Your task to perform on an android device: toggle location history Image 0: 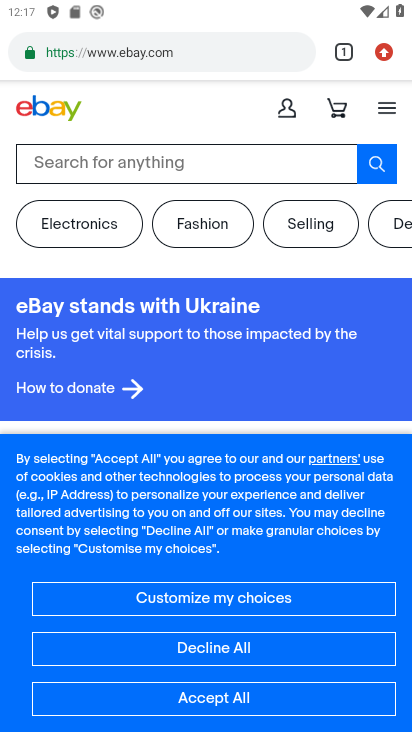
Step 0: press home button
Your task to perform on an android device: toggle location history Image 1: 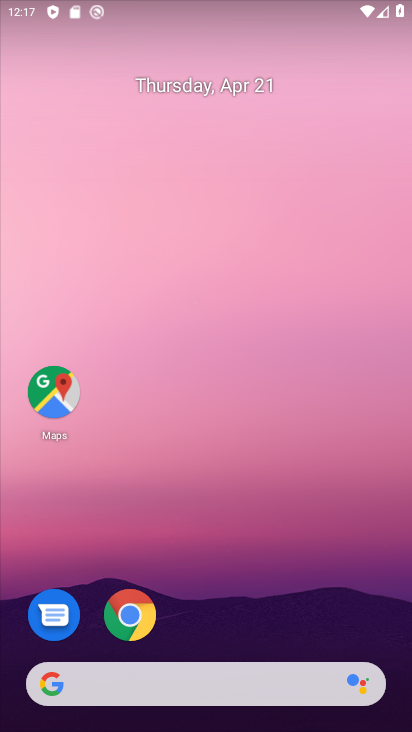
Step 1: drag from (205, 511) to (246, 66)
Your task to perform on an android device: toggle location history Image 2: 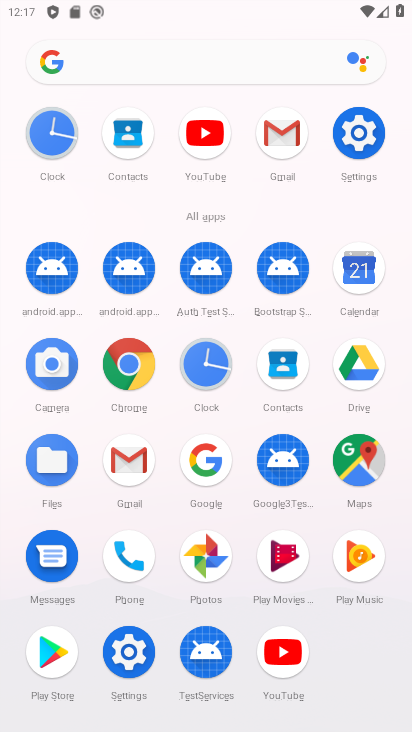
Step 2: click (350, 131)
Your task to perform on an android device: toggle location history Image 3: 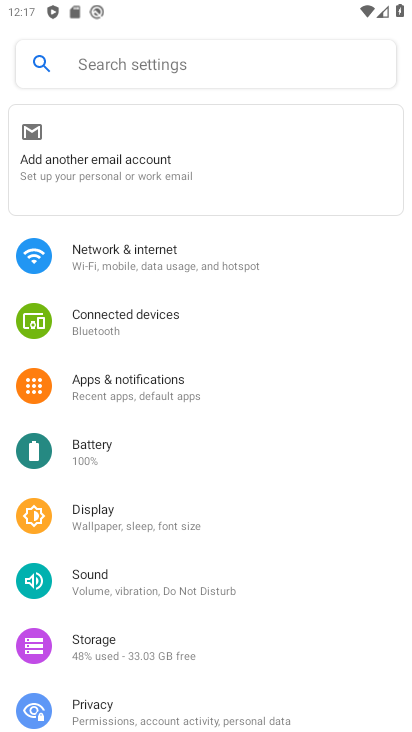
Step 3: drag from (113, 635) to (141, 306)
Your task to perform on an android device: toggle location history Image 4: 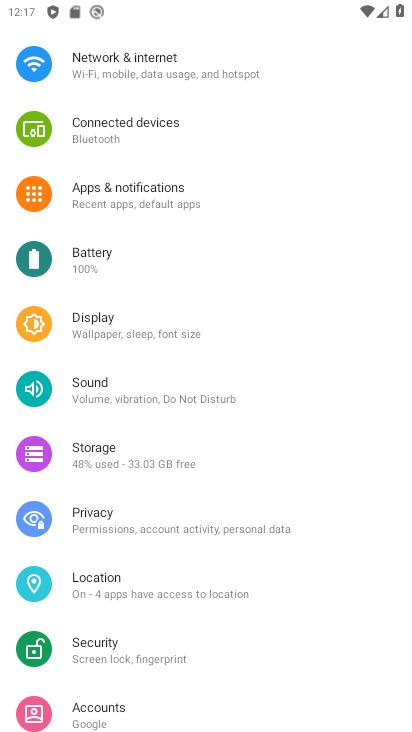
Step 4: click (123, 568)
Your task to perform on an android device: toggle location history Image 5: 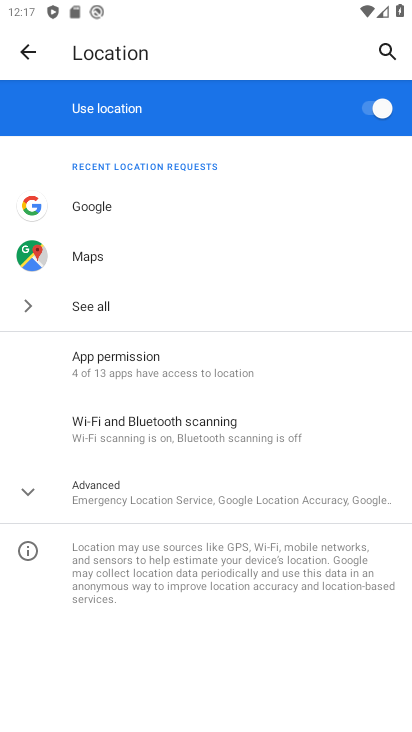
Step 5: click (117, 486)
Your task to perform on an android device: toggle location history Image 6: 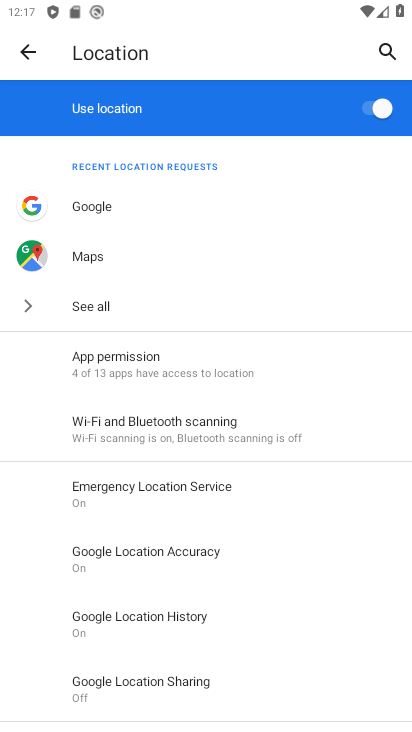
Step 6: click (143, 626)
Your task to perform on an android device: toggle location history Image 7: 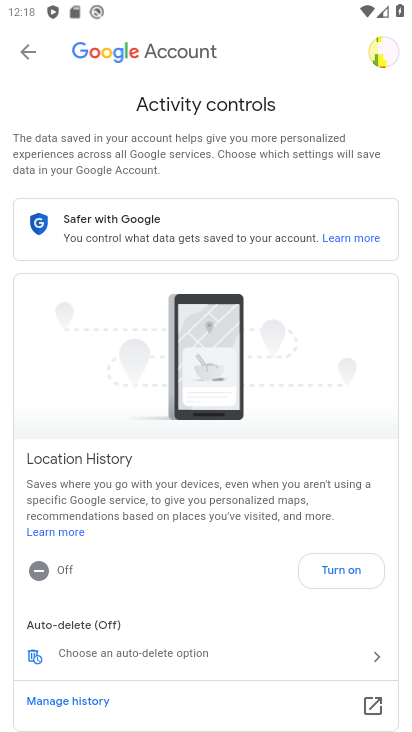
Step 7: click (38, 576)
Your task to perform on an android device: toggle location history Image 8: 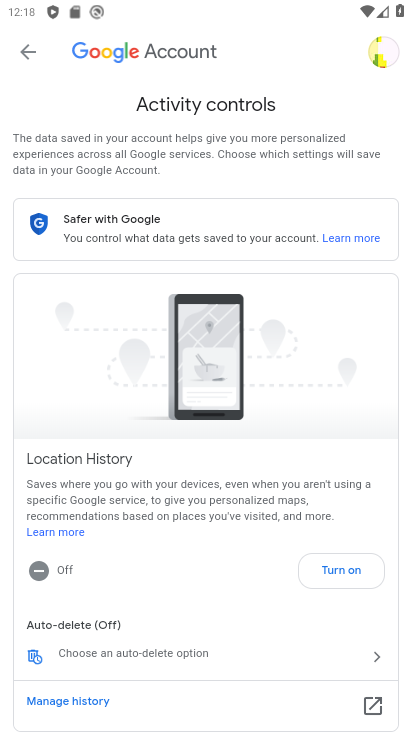
Step 8: click (330, 562)
Your task to perform on an android device: toggle location history Image 9: 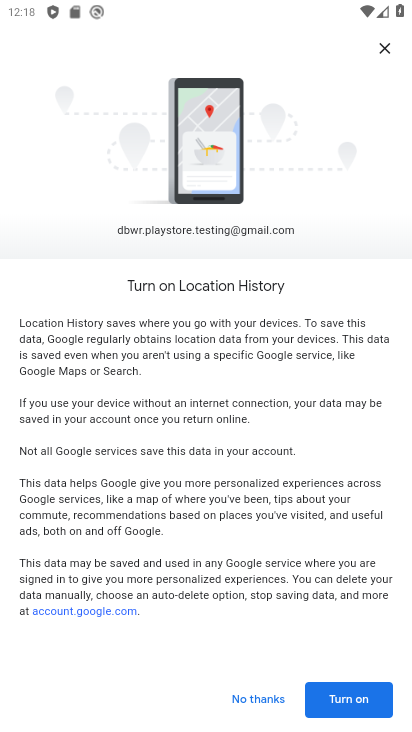
Step 9: click (328, 690)
Your task to perform on an android device: toggle location history Image 10: 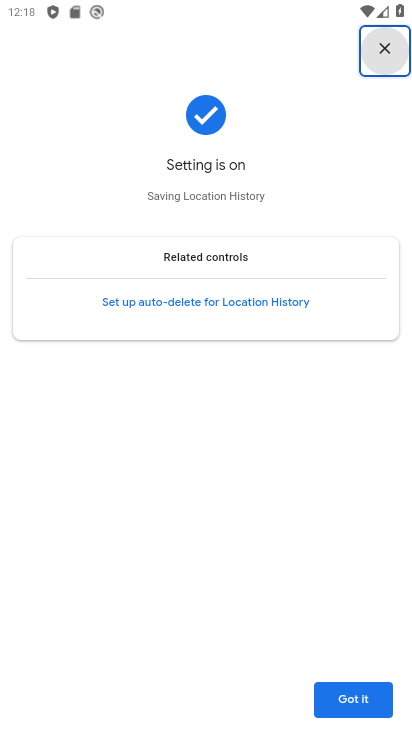
Step 10: task complete